Your task to perform on an android device: see tabs open on other devices in the chrome app Image 0: 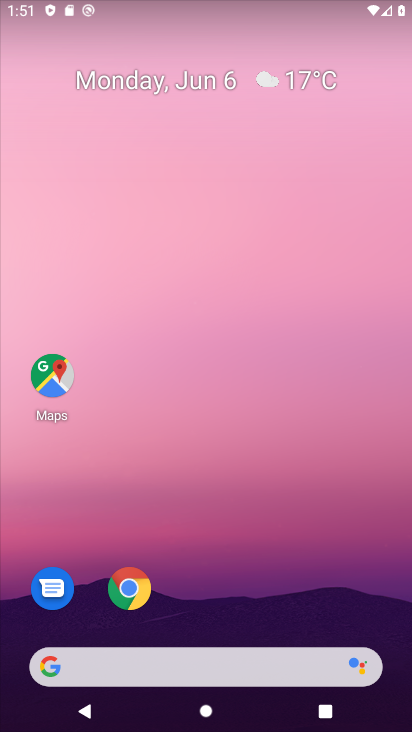
Step 0: click (146, 582)
Your task to perform on an android device: see tabs open on other devices in the chrome app Image 1: 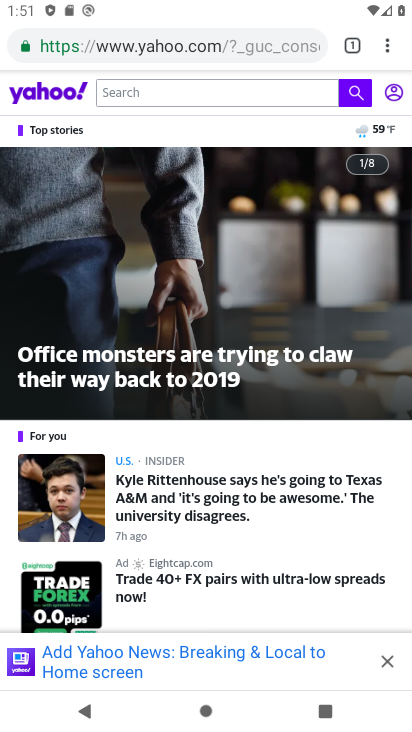
Step 1: task complete